Your task to perform on an android device: toggle javascript in the chrome app Image 0: 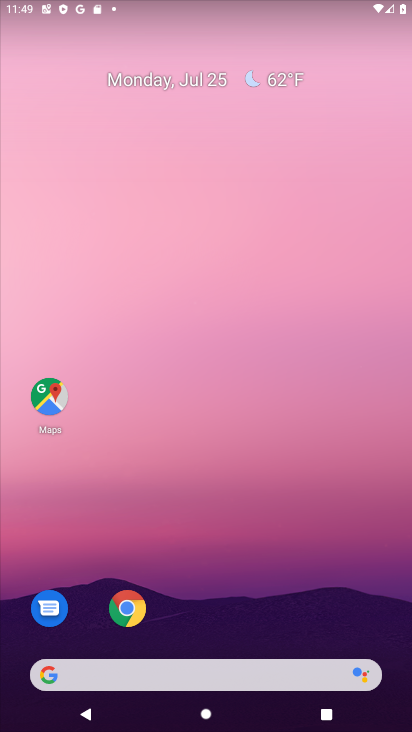
Step 0: click (124, 601)
Your task to perform on an android device: toggle javascript in the chrome app Image 1: 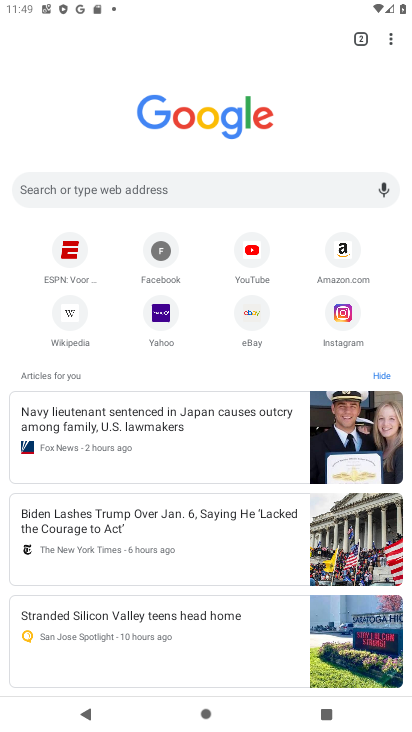
Step 1: click (392, 33)
Your task to perform on an android device: toggle javascript in the chrome app Image 2: 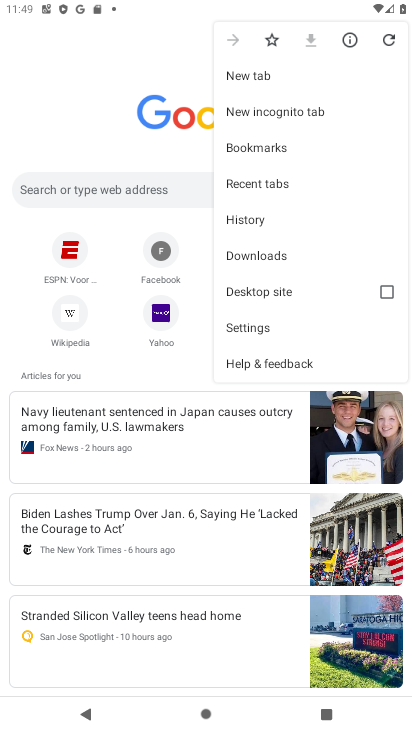
Step 2: click (246, 324)
Your task to perform on an android device: toggle javascript in the chrome app Image 3: 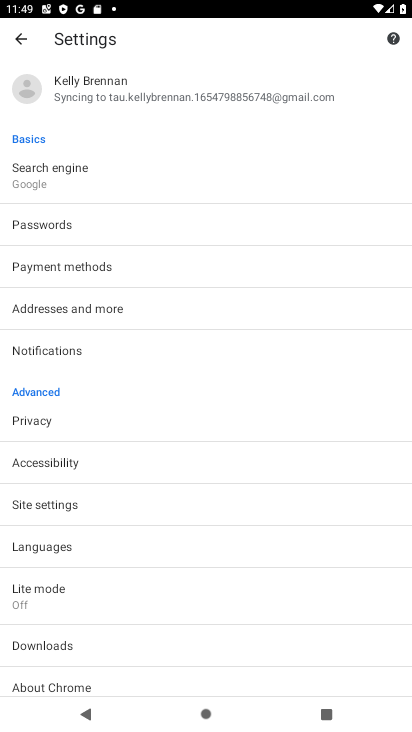
Step 3: task complete